Your task to perform on an android device: Search for a custom made wallet on Etsy Image 0: 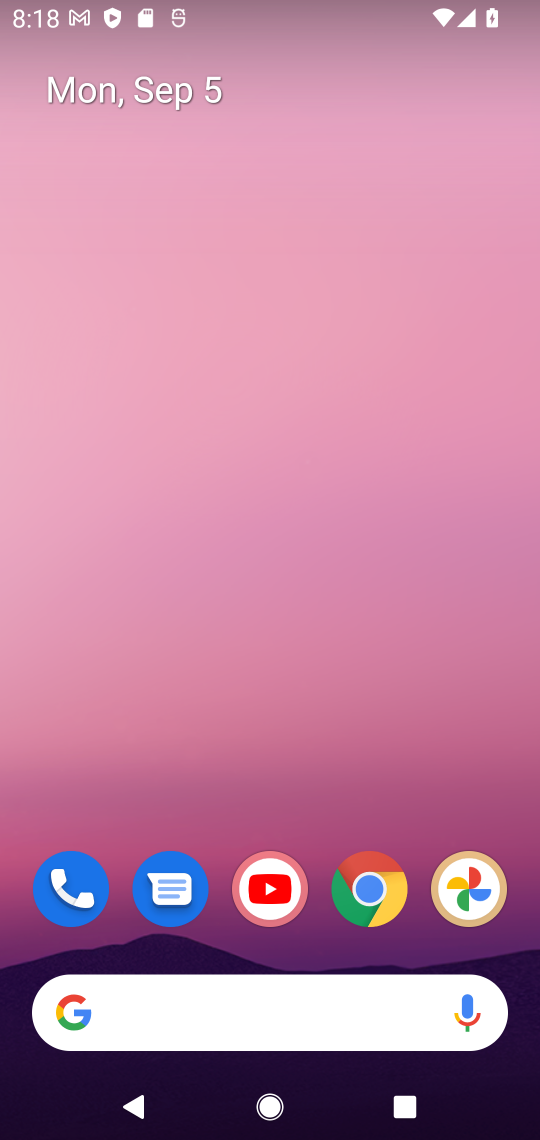
Step 0: click (263, 1010)
Your task to perform on an android device: Search for a custom made wallet on Etsy Image 1: 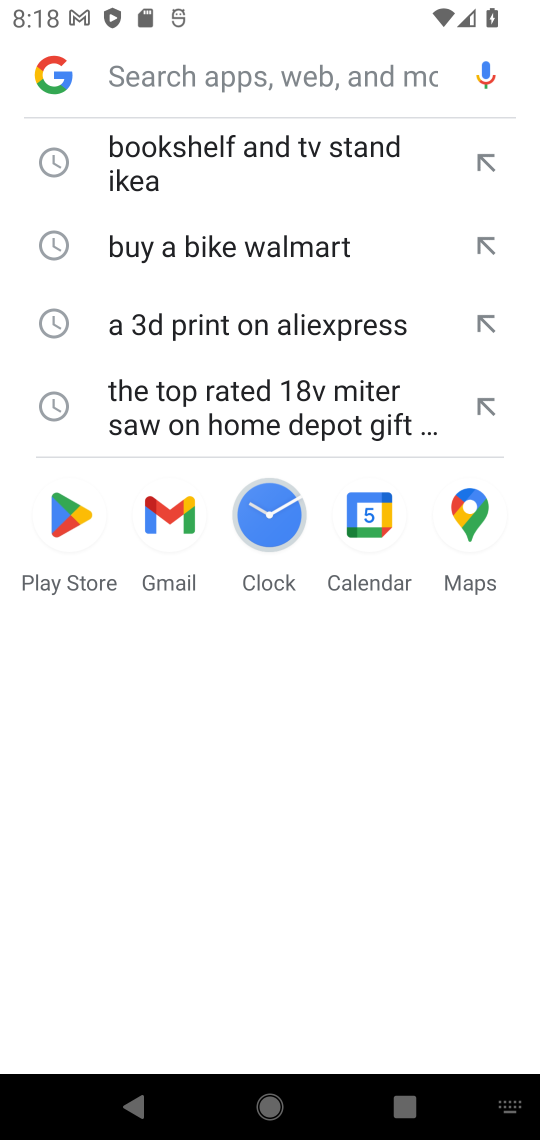
Step 1: type " a custom made wallet on Etsy"
Your task to perform on an android device: Search for a custom made wallet on Etsy Image 2: 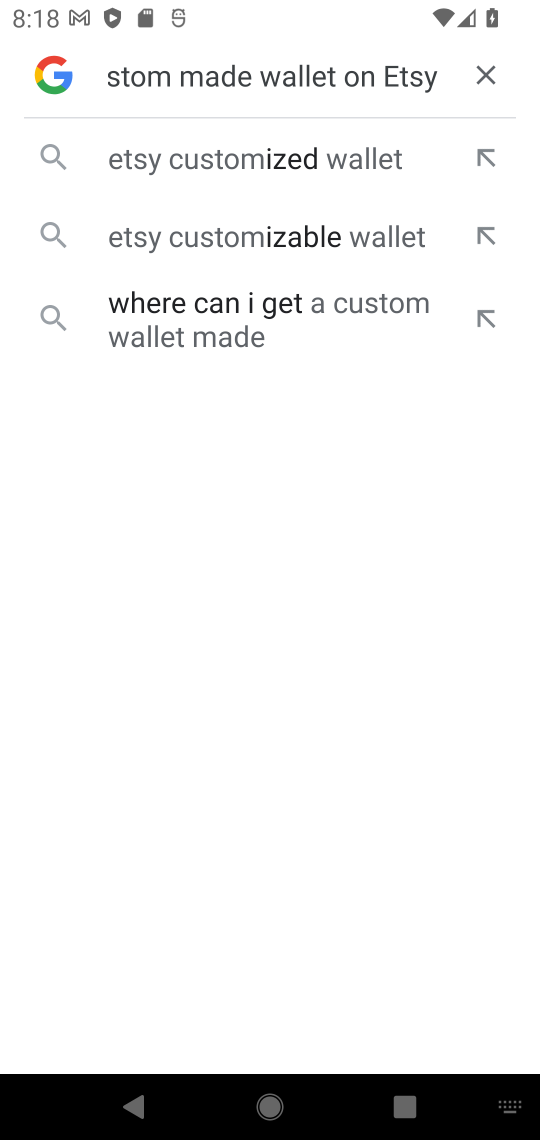
Step 2: click (348, 166)
Your task to perform on an android device: Search for a custom made wallet on Etsy Image 3: 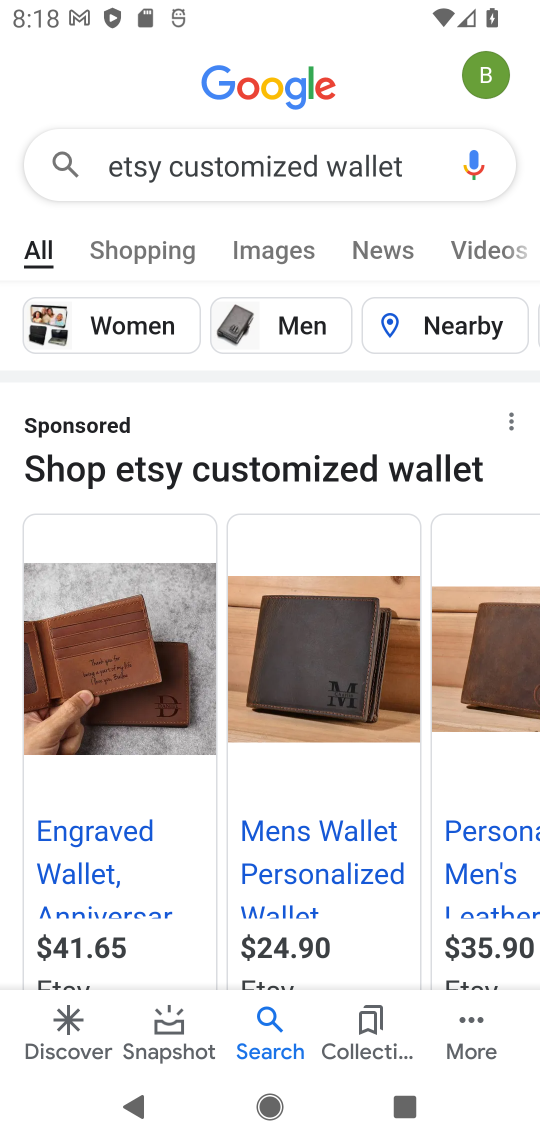
Step 3: task complete